Your task to perform on an android device: Open settings Image 0: 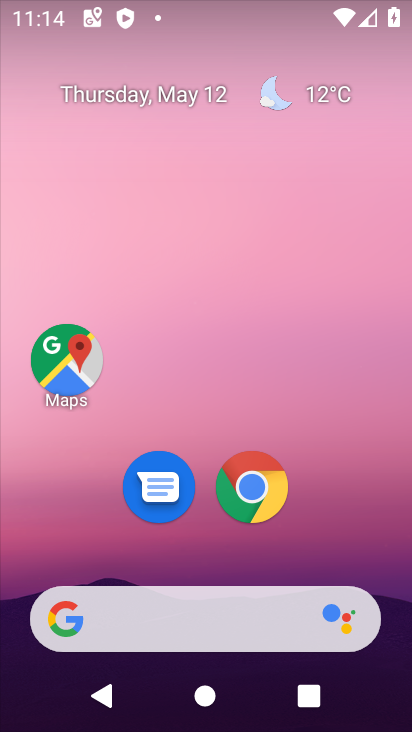
Step 0: drag from (340, 558) to (314, 2)
Your task to perform on an android device: Open settings Image 1: 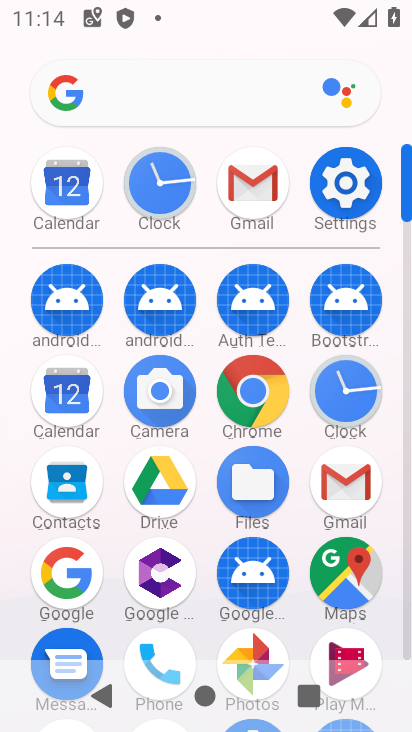
Step 1: click (340, 189)
Your task to perform on an android device: Open settings Image 2: 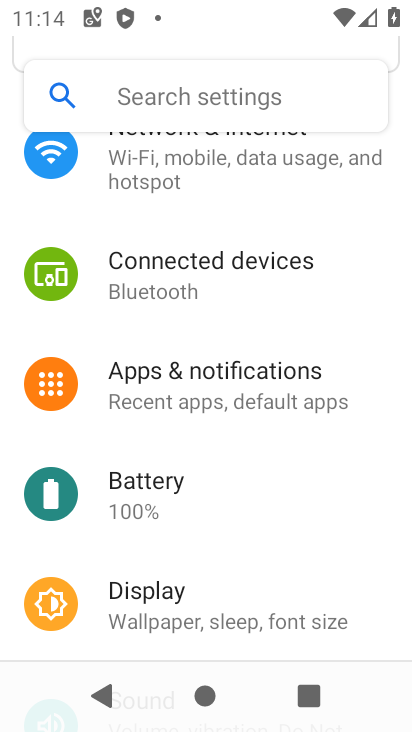
Step 2: task complete